Your task to perform on an android device: open sync settings in chrome Image 0: 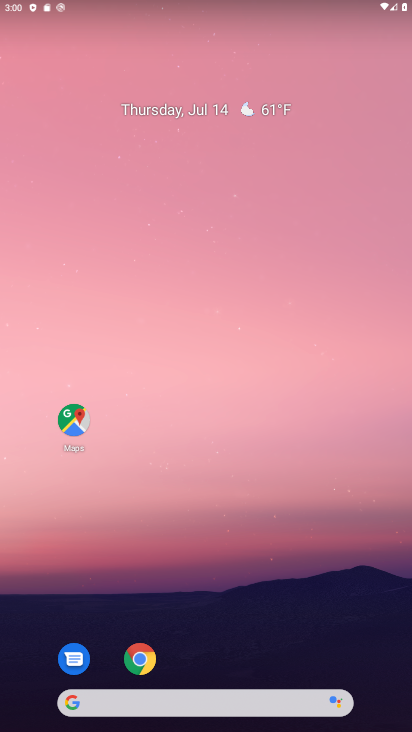
Step 0: click (140, 660)
Your task to perform on an android device: open sync settings in chrome Image 1: 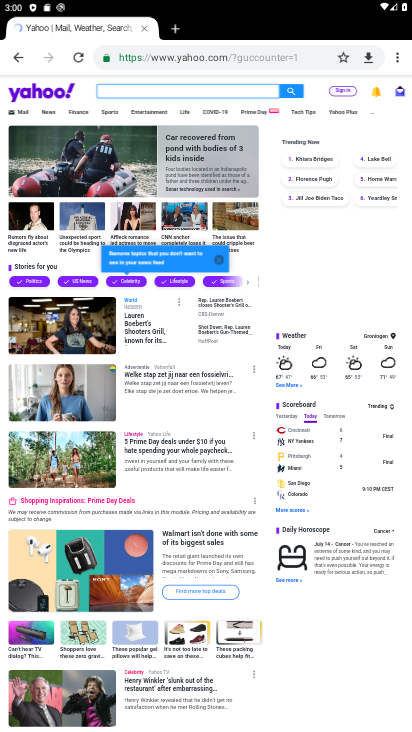
Step 1: click (397, 56)
Your task to perform on an android device: open sync settings in chrome Image 2: 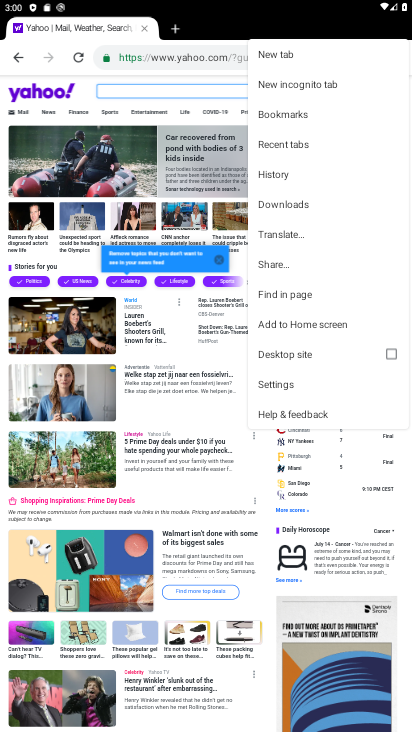
Step 2: click (280, 382)
Your task to perform on an android device: open sync settings in chrome Image 3: 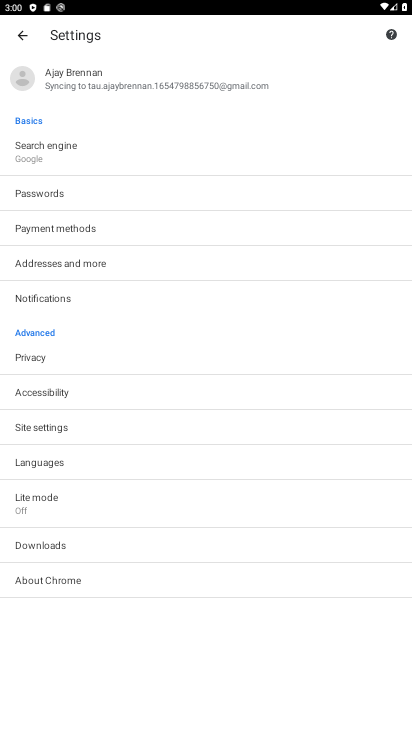
Step 3: click (39, 431)
Your task to perform on an android device: open sync settings in chrome Image 4: 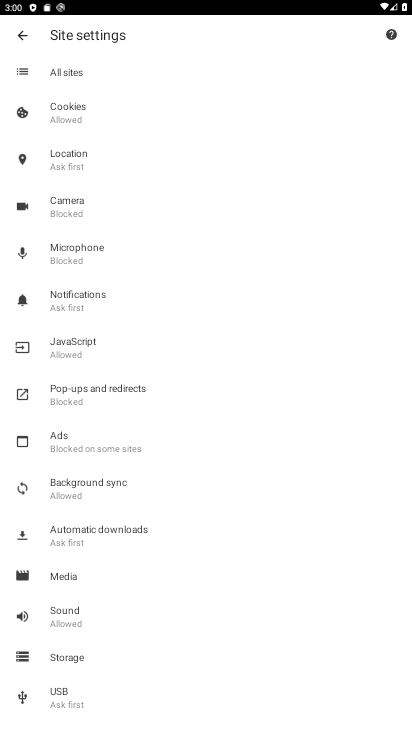
Step 4: click (95, 486)
Your task to perform on an android device: open sync settings in chrome Image 5: 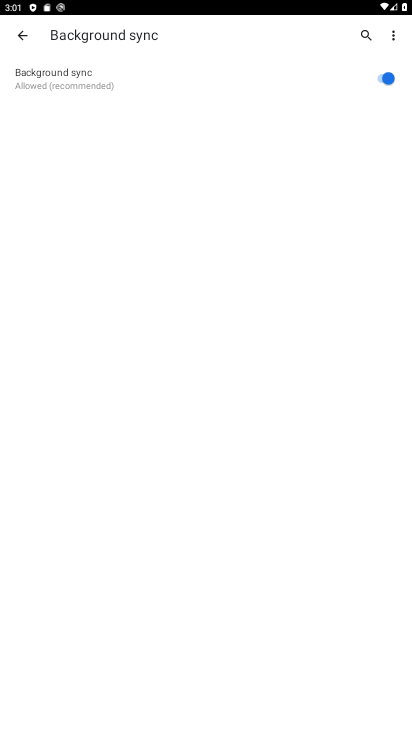
Step 5: task complete